Your task to perform on an android device: turn on the 24-hour format for clock Image 0: 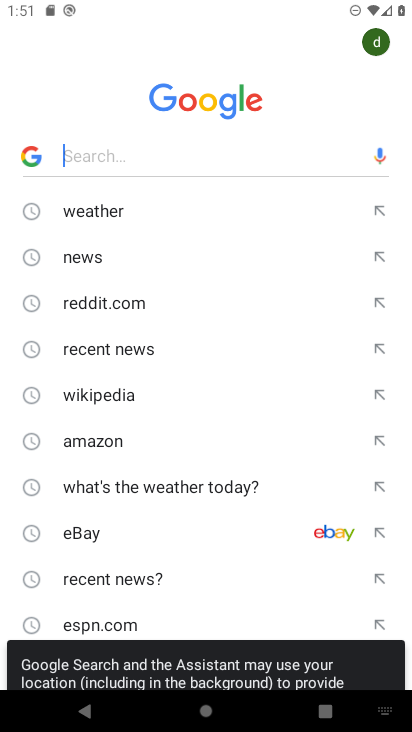
Step 0: press home button
Your task to perform on an android device: turn on the 24-hour format for clock Image 1: 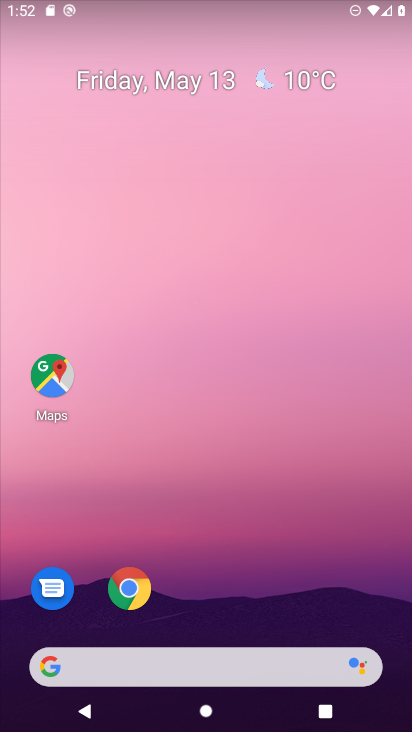
Step 1: drag from (248, 450) to (245, 15)
Your task to perform on an android device: turn on the 24-hour format for clock Image 2: 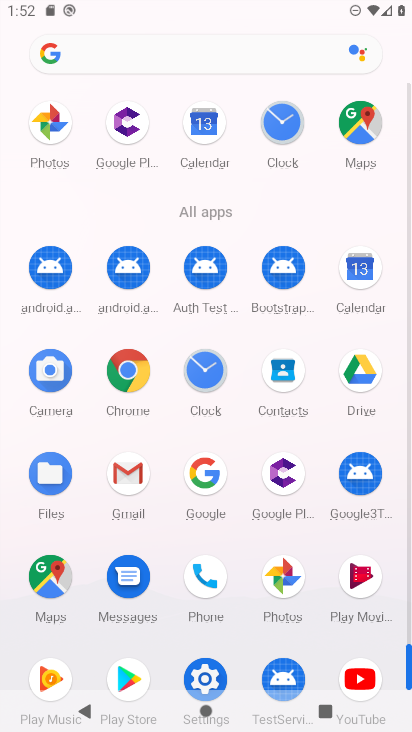
Step 2: click (204, 362)
Your task to perform on an android device: turn on the 24-hour format for clock Image 3: 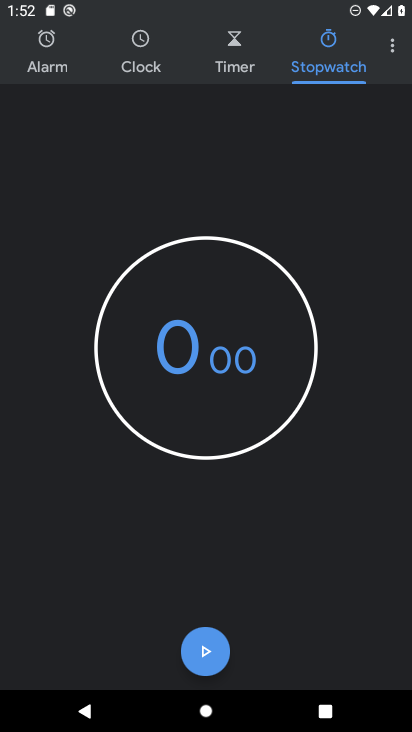
Step 3: click (393, 42)
Your task to perform on an android device: turn on the 24-hour format for clock Image 4: 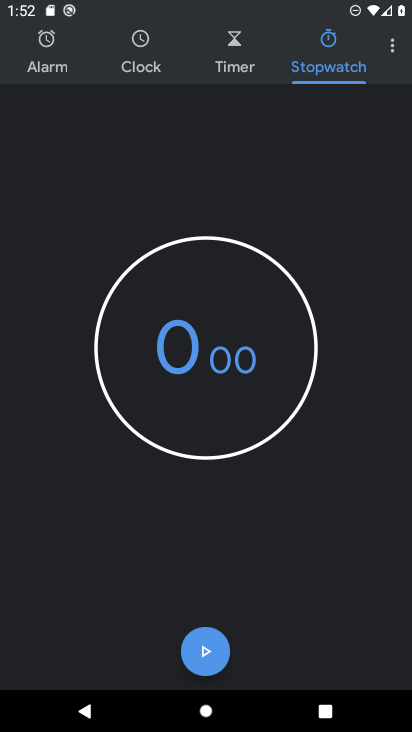
Step 4: click (389, 47)
Your task to perform on an android device: turn on the 24-hour format for clock Image 5: 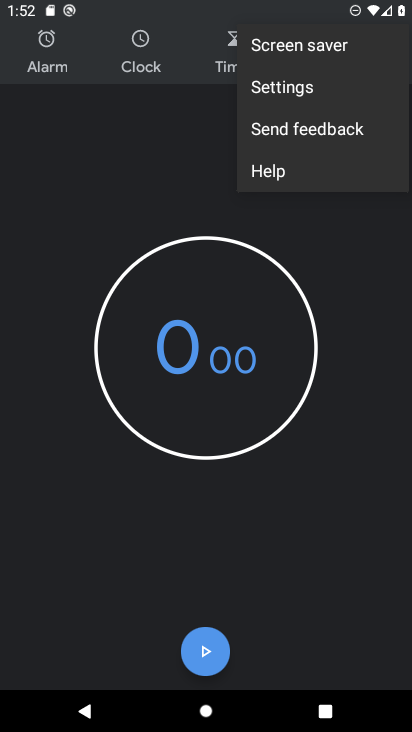
Step 5: click (281, 84)
Your task to perform on an android device: turn on the 24-hour format for clock Image 6: 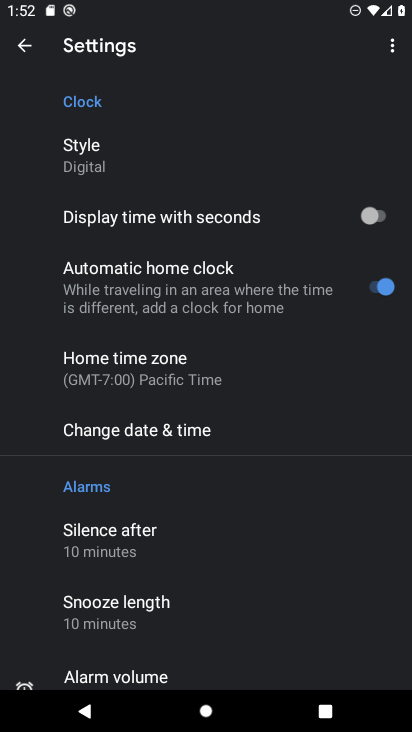
Step 6: click (134, 432)
Your task to perform on an android device: turn on the 24-hour format for clock Image 7: 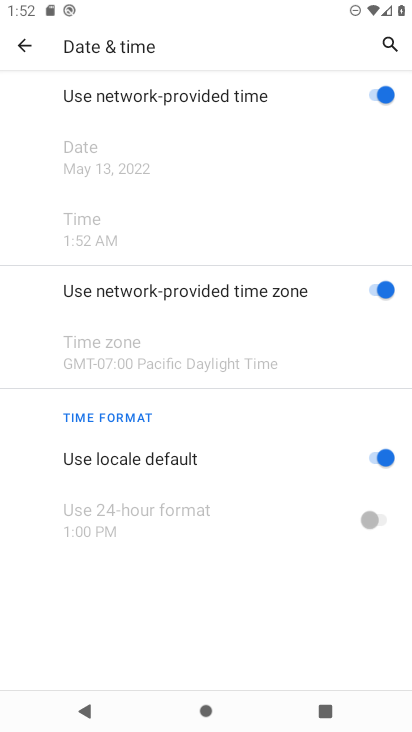
Step 7: click (375, 459)
Your task to perform on an android device: turn on the 24-hour format for clock Image 8: 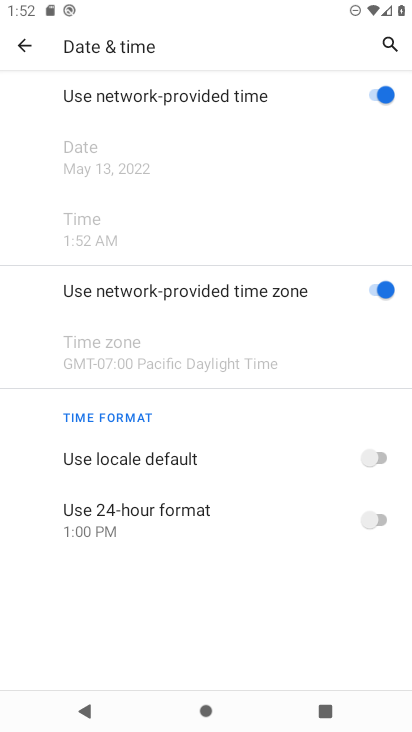
Step 8: click (378, 517)
Your task to perform on an android device: turn on the 24-hour format for clock Image 9: 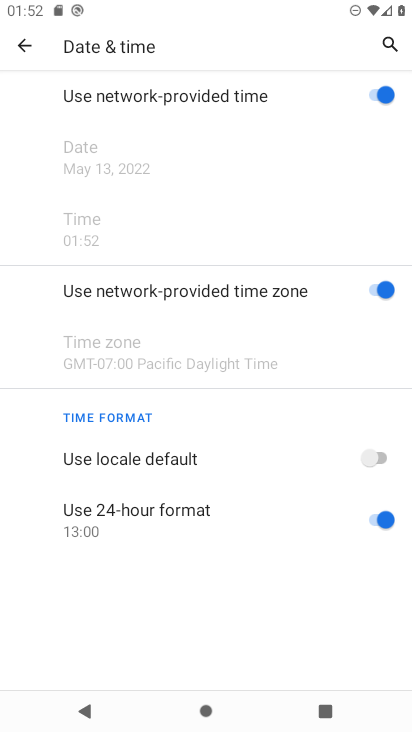
Step 9: task complete